Your task to perform on an android device: open app "PlayWell" Image 0: 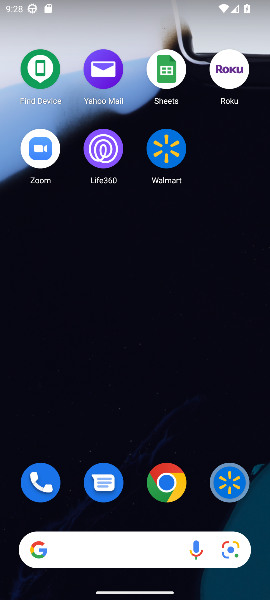
Step 0: drag from (126, 589) to (128, 137)
Your task to perform on an android device: open app "PlayWell" Image 1: 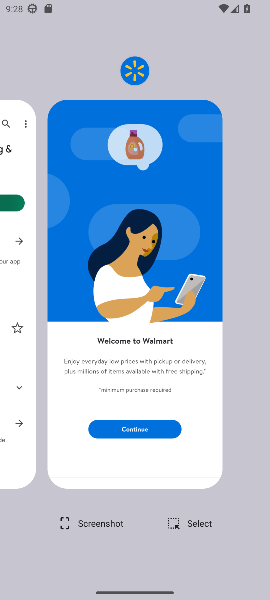
Step 1: click (10, 260)
Your task to perform on an android device: open app "PlayWell" Image 2: 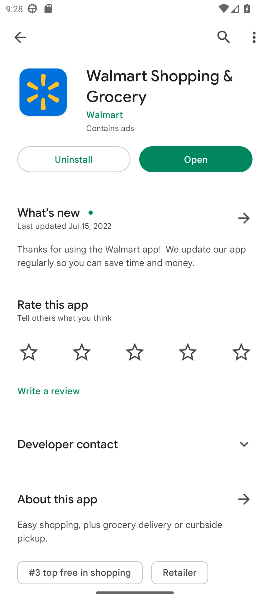
Step 2: click (220, 32)
Your task to perform on an android device: open app "PlayWell" Image 3: 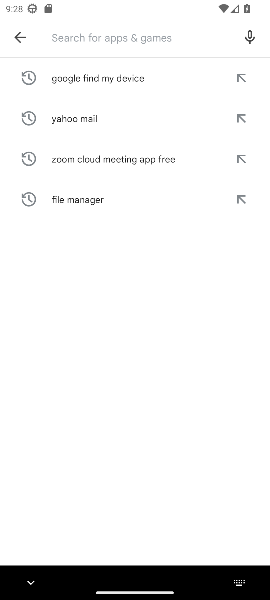
Step 3: type "PlayWell"
Your task to perform on an android device: open app "PlayWell" Image 4: 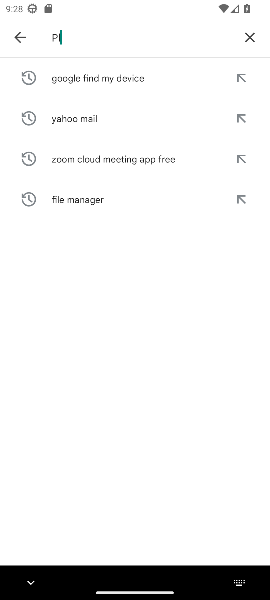
Step 4: type ""
Your task to perform on an android device: open app "PlayWell" Image 5: 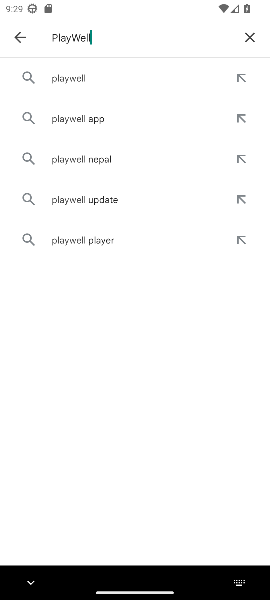
Step 5: click (74, 80)
Your task to perform on an android device: open app "PlayWell" Image 6: 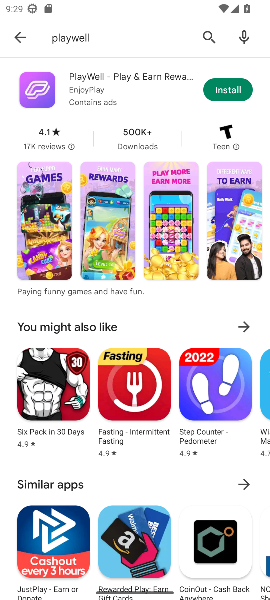
Step 6: task complete